Your task to perform on an android device: Go to network settings Image 0: 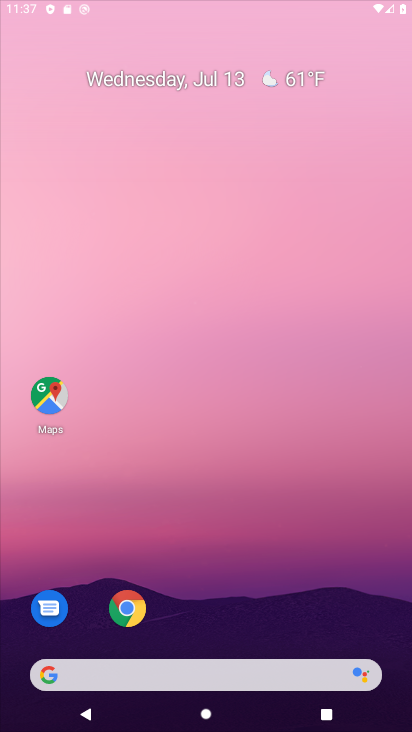
Step 0: click (175, 28)
Your task to perform on an android device: Go to network settings Image 1: 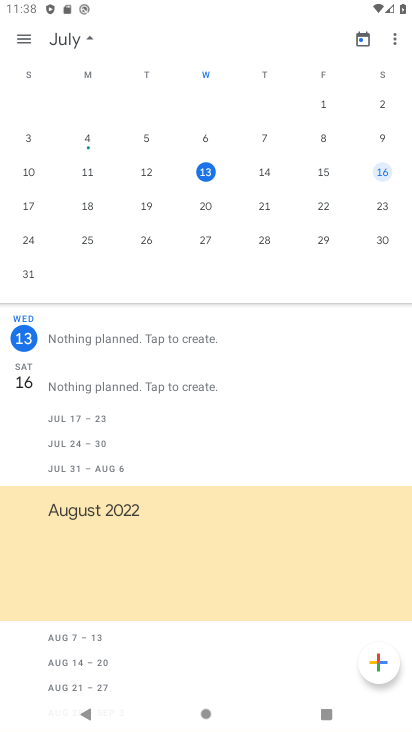
Step 1: press home button
Your task to perform on an android device: Go to network settings Image 2: 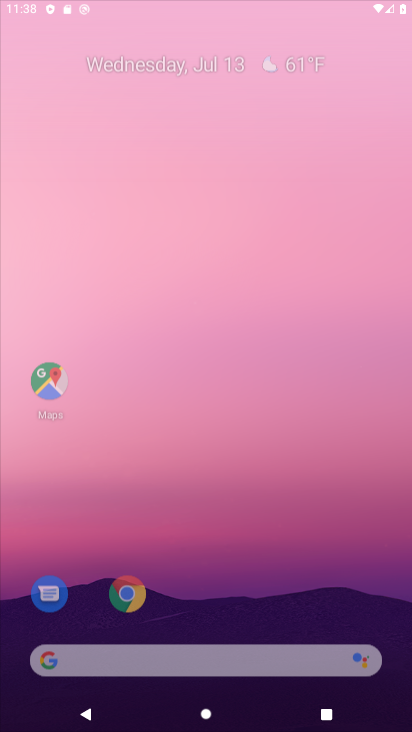
Step 2: drag from (234, 536) to (215, 305)
Your task to perform on an android device: Go to network settings Image 3: 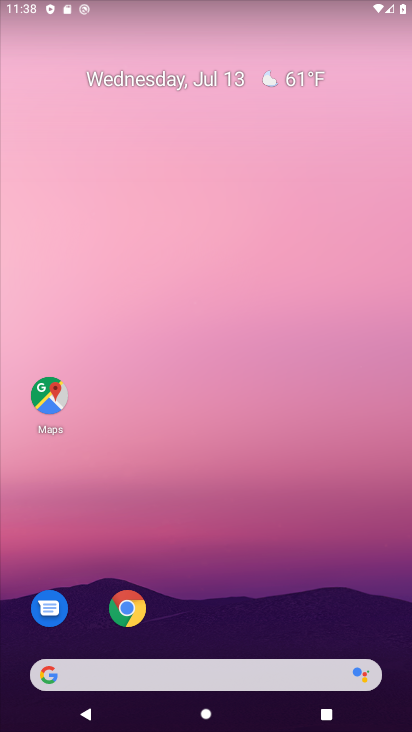
Step 3: drag from (179, 583) to (234, 251)
Your task to perform on an android device: Go to network settings Image 4: 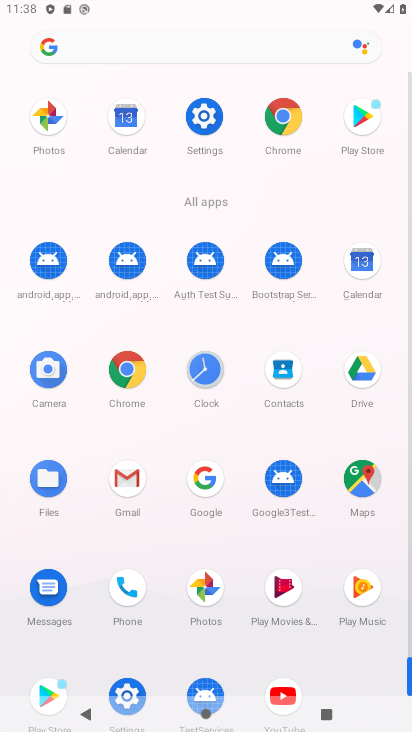
Step 4: click (201, 130)
Your task to perform on an android device: Go to network settings Image 5: 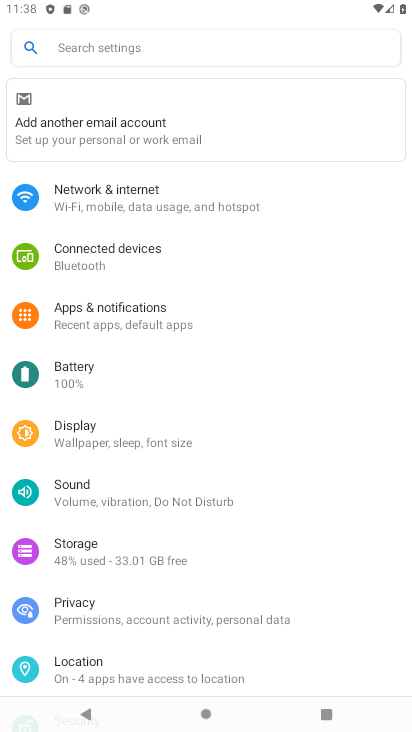
Step 5: drag from (172, 626) to (201, 355)
Your task to perform on an android device: Go to network settings Image 6: 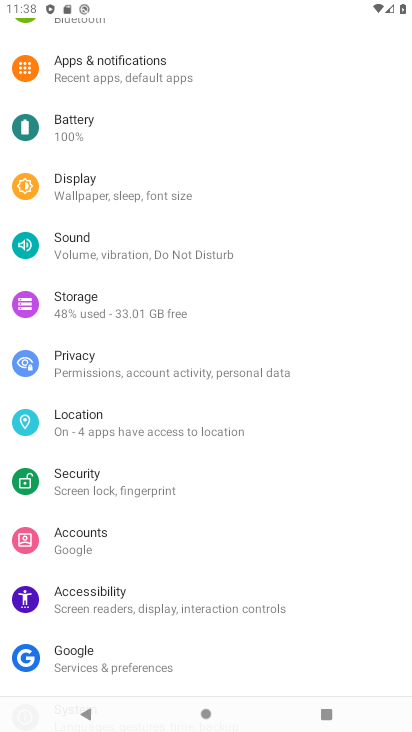
Step 6: drag from (122, 130) to (223, 492)
Your task to perform on an android device: Go to network settings Image 7: 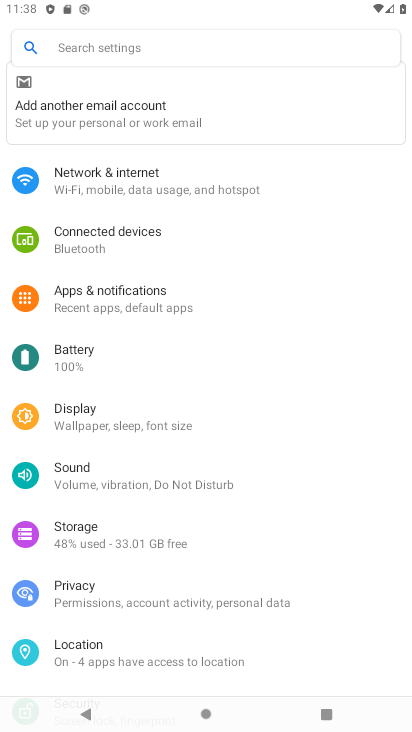
Step 7: click (131, 188)
Your task to perform on an android device: Go to network settings Image 8: 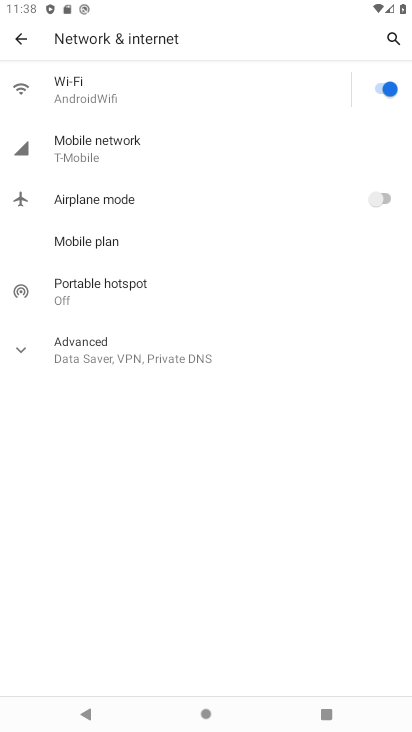
Step 8: drag from (154, 230) to (195, 643)
Your task to perform on an android device: Go to network settings Image 9: 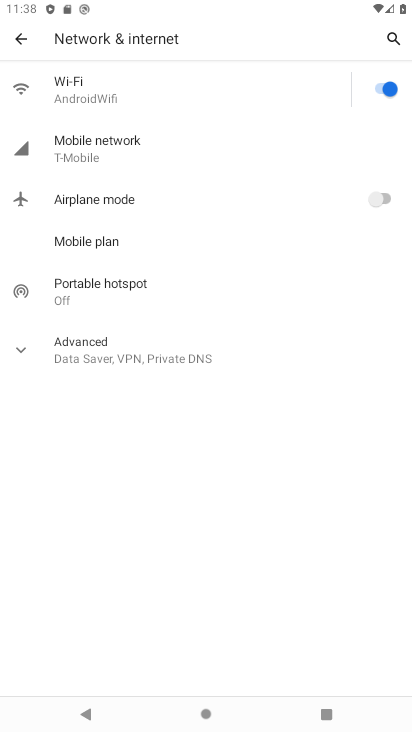
Step 9: click (146, 145)
Your task to perform on an android device: Go to network settings Image 10: 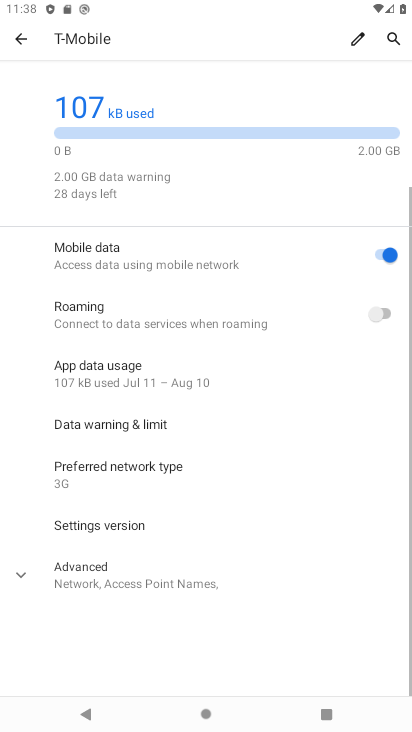
Step 10: task complete